Your task to perform on an android device: Do I have any events this weekend? Image 0: 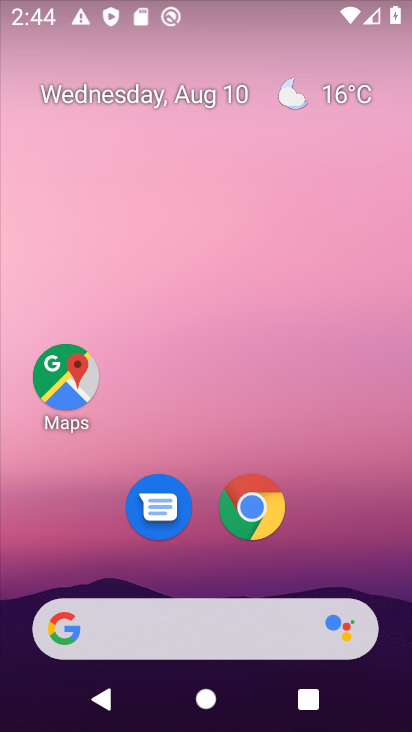
Step 0: drag from (363, 494) to (333, 0)
Your task to perform on an android device: Do I have any events this weekend? Image 1: 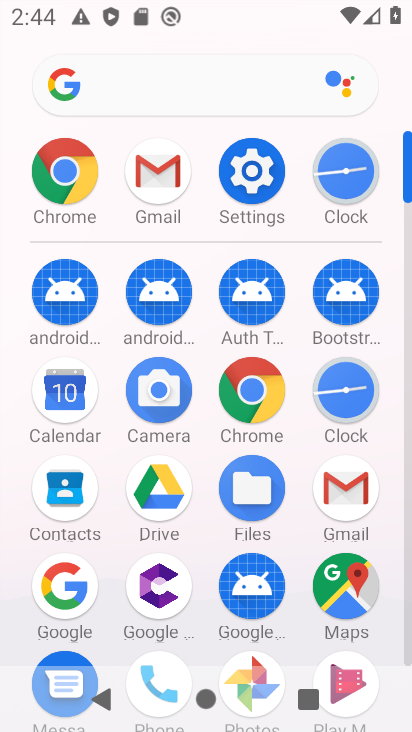
Step 1: click (73, 386)
Your task to perform on an android device: Do I have any events this weekend? Image 2: 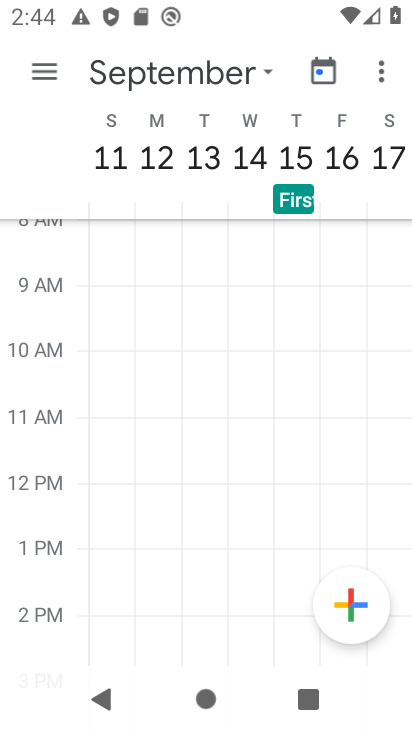
Step 2: click (371, 162)
Your task to perform on an android device: Do I have any events this weekend? Image 3: 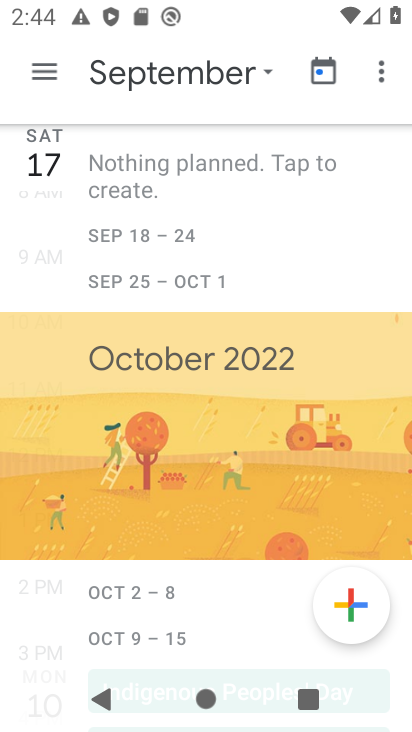
Step 3: click (191, 72)
Your task to perform on an android device: Do I have any events this weekend? Image 4: 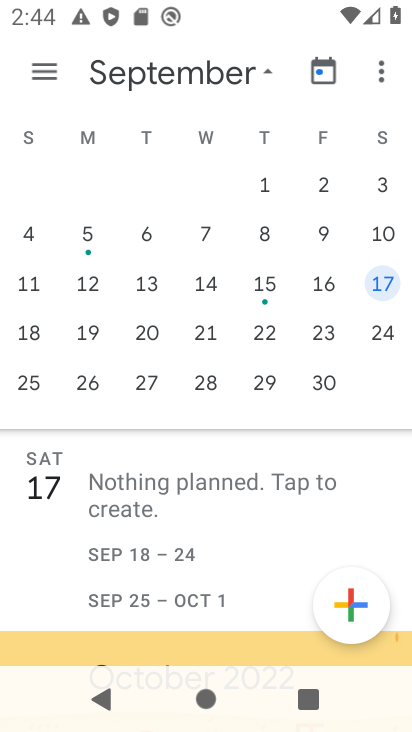
Step 4: drag from (28, 237) to (386, 282)
Your task to perform on an android device: Do I have any events this weekend? Image 5: 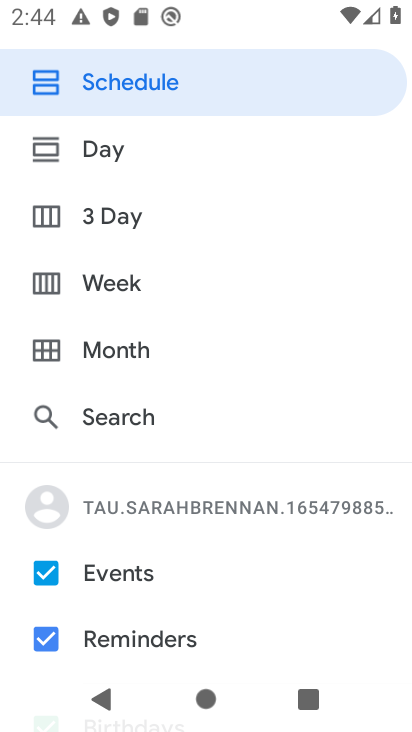
Step 5: drag from (380, 286) to (33, 276)
Your task to perform on an android device: Do I have any events this weekend? Image 6: 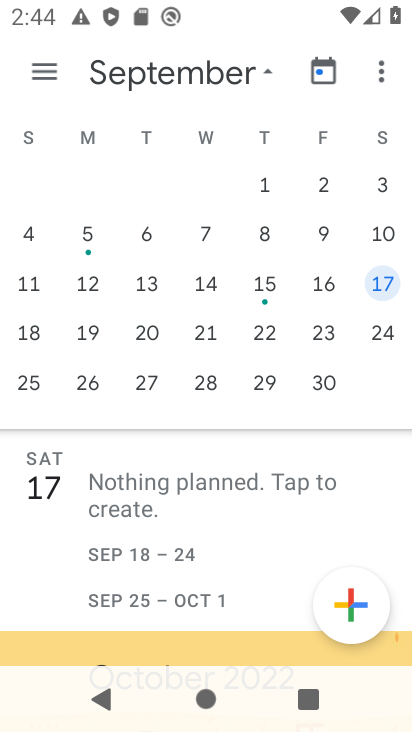
Step 6: drag from (72, 272) to (408, 289)
Your task to perform on an android device: Do I have any events this weekend? Image 7: 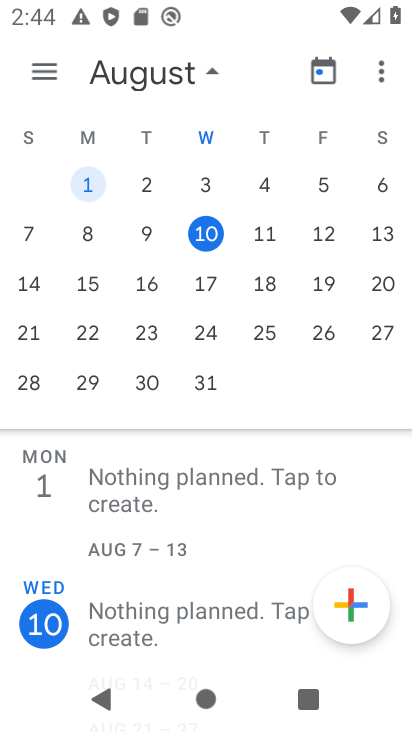
Step 7: click (386, 225)
Your task to perform on an android device: Do I have any events this weekend? Image 8: 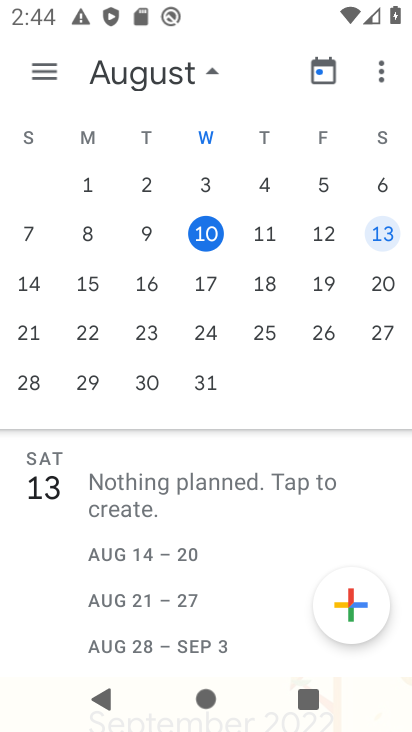
Step 8: task complete